Your task to perform on an android device: check the backup settings in the google photos Image 0: 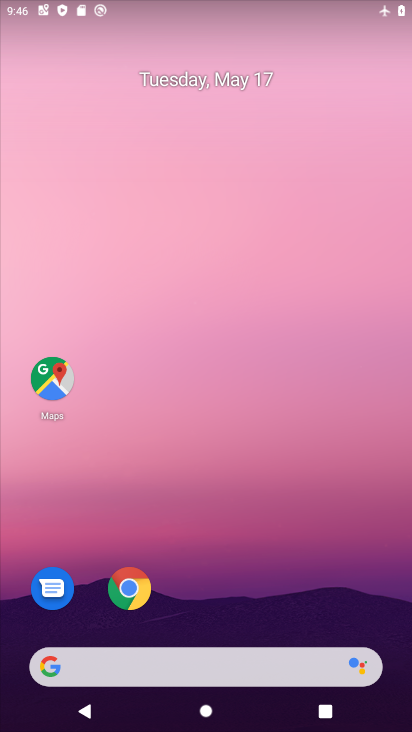
Step 0: drag from (226, 643) to (260, 73)
Your task to perform on an android device: check the backup settings in the google photos Image 1: 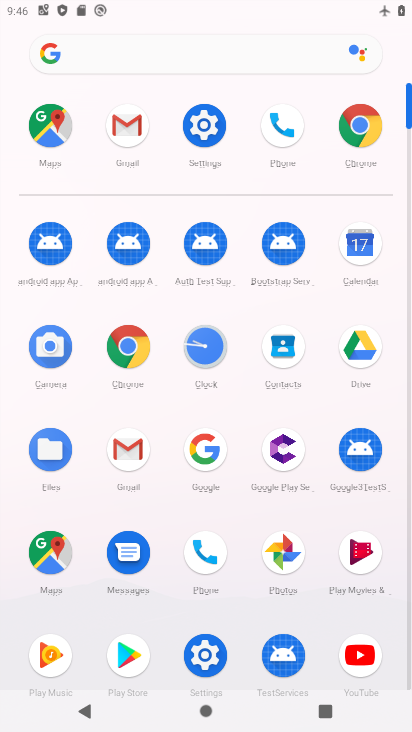
Step 1: click (285, 560)
Your task to perform on an android device: check the backup settings in the google photos Image 2: 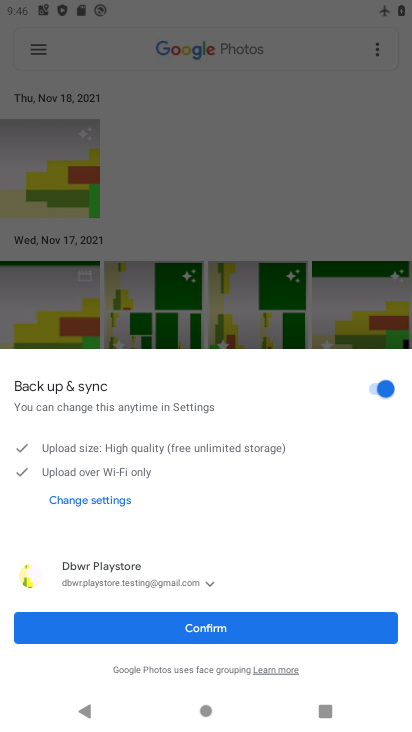
Step 2: click (212, 632)
Your task to perform on an android device: check the backup settings in the google photos Image 3: 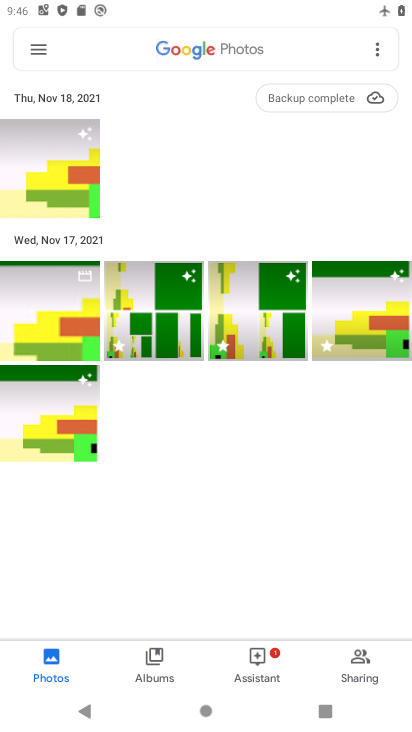
Step 3: click (37, 54)
Your task to perform on an android device: check the backup settings in the google photos Image 4: 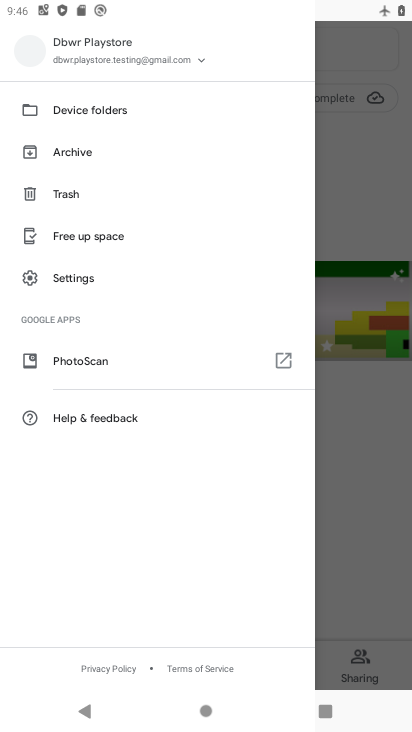
Step 4: click (70, 278)
Your task to perform on an android device: check the backup settings in the google photos Image 5: 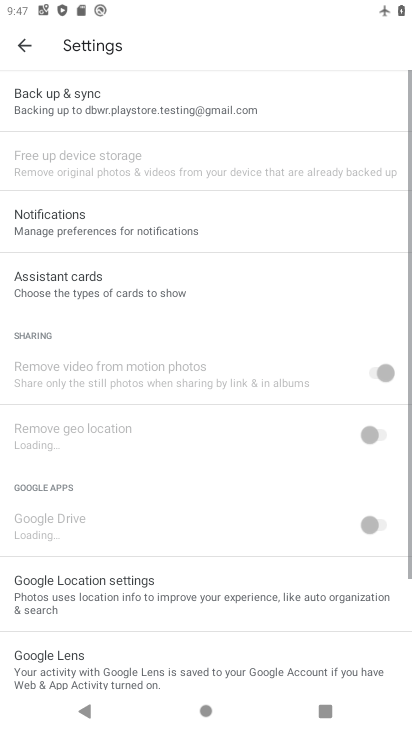
Step 5: click (92, 106)
Your task to perform on an android device: check the backup settings in the google photos Image 6: 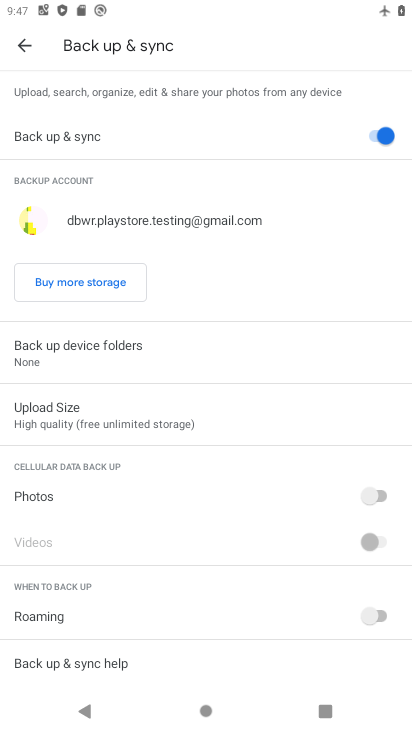
Step 6: task complete